Your task to perform on an android device: turn off sleep mode Image 0: 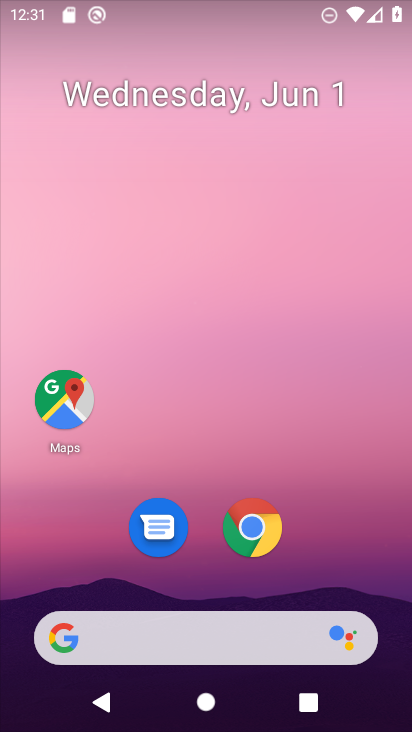
Step 0: drag from (252, 708) to (269, 14)
Your task to perform on an android device: turn off sleep mode Image 1: 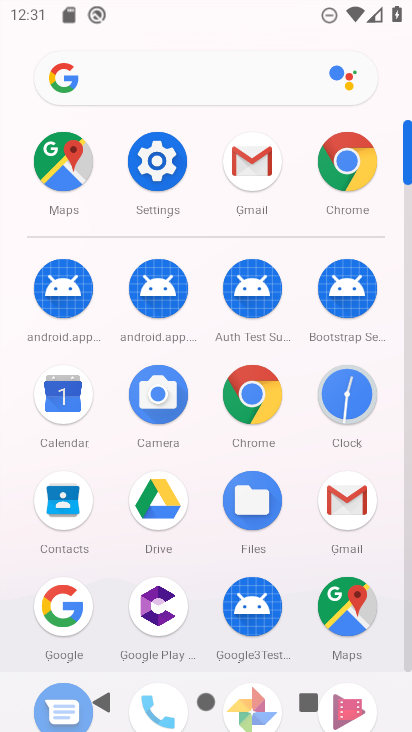
Step 1: click (169, 154)
Your task to perform on an android device: turn off sleep mode Image 2: 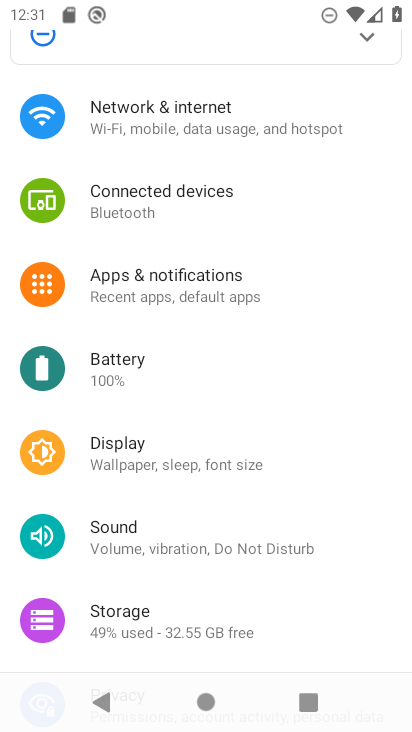
Step 2: drag from (261, 539) to (295, 16)
Your task to perform on an android device: turn off sleep mode Image 3: 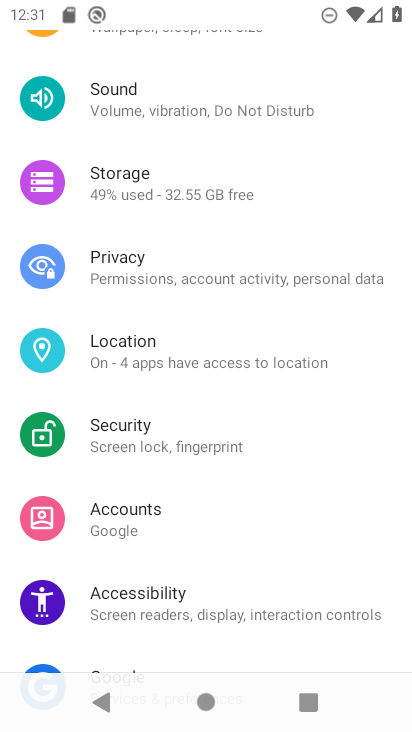
Step 3: drag from (321, 109) to (292, 466)
Your task to perform on an android device: turn off sleep mode Image 4: 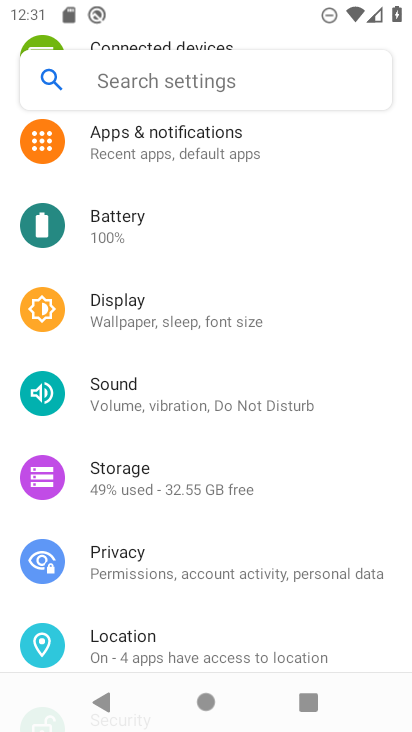
Step 4: click (255, 312)
Your task to perform on an android device: turn off sleep mode Image 5: 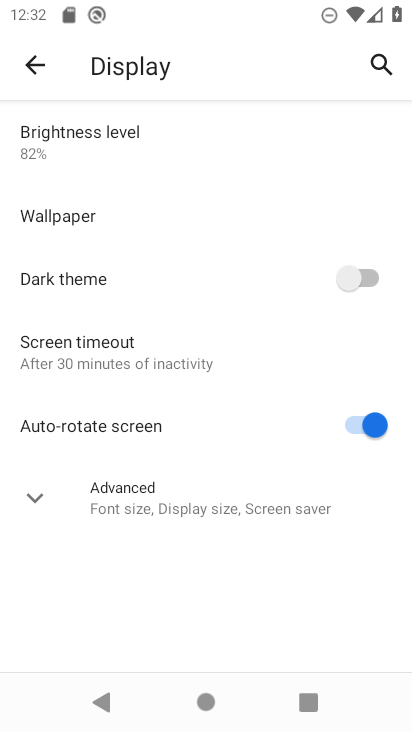
Step 5: task complete